Your task to perform on an android device: show emergency info Image 0: 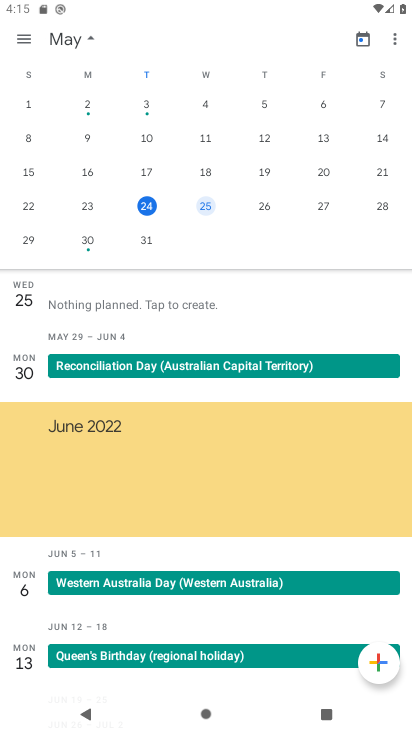
Step 0: press home button
Your task to perform on an android device: show emergency info Image 1: 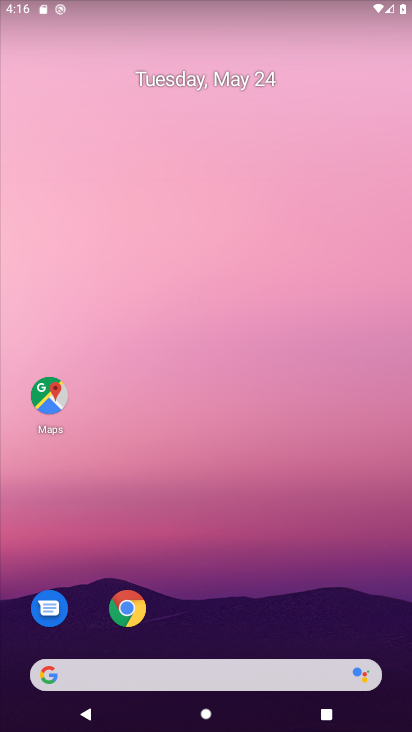
Step 1: drag from (242, 663) to (199, 220)
Your task to perform on an android device: show emergency info Image 2: 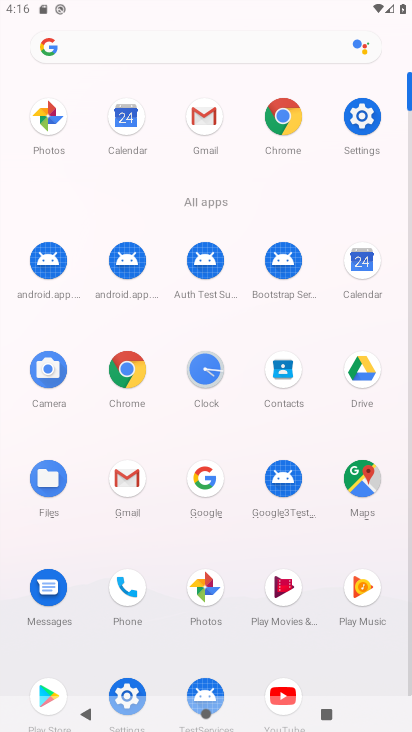
Step 2: click (359, 128)
Your task to perform on an android device: show emergency info Image 3: 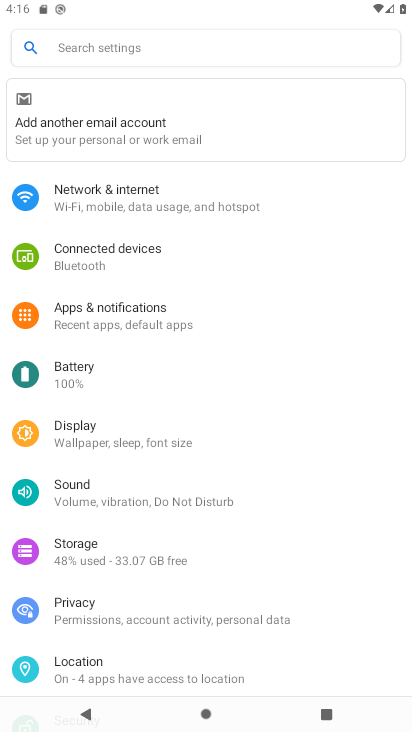
Step 3: drag from (169, 678) to (135, 295)
Your task to perform on an android device: show emergency info Image 4: 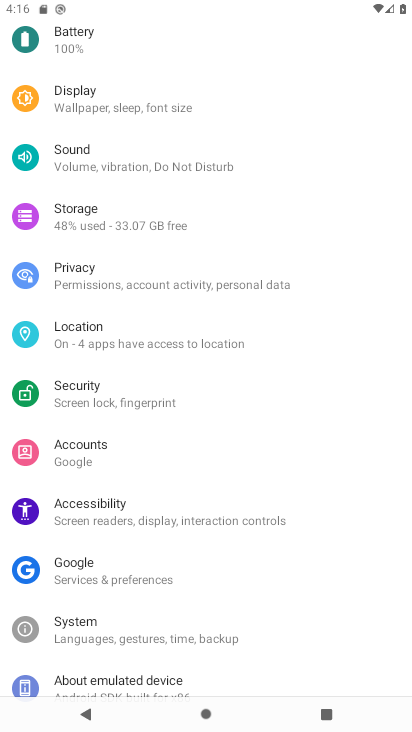
Step 4: drag from (127, 625) to (127, 330)
Your task to perform on an android device: show emergency info Image 5: 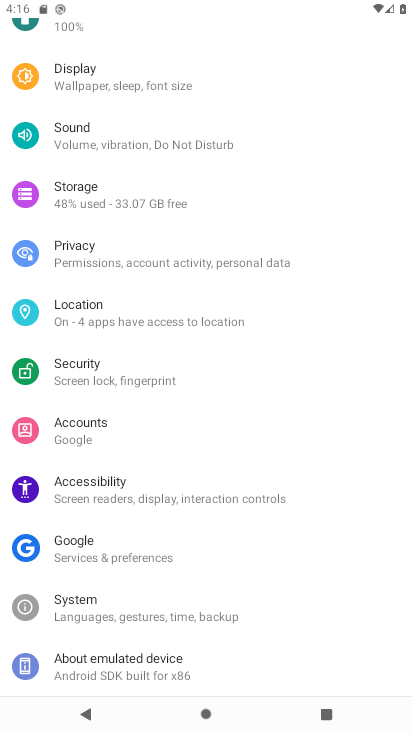
Step 5: click (165, 659)
Your task to perform on an android device: show emergency info Image 6: 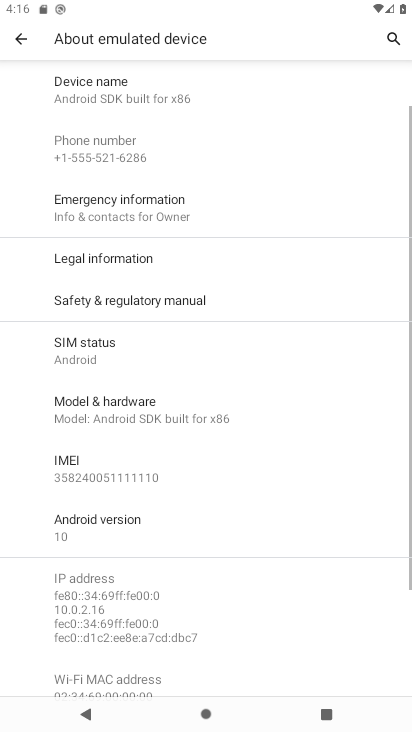
Step 6: drag from (183, 669) to (223, 393)
Your task to perform on an android device: show emergency info Image 7: 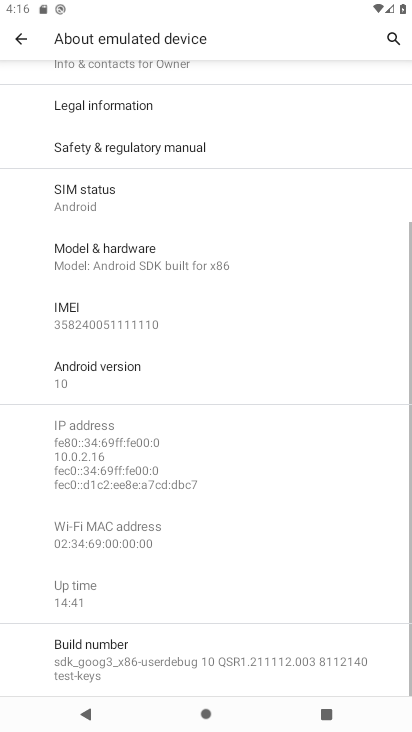
Step 7: drag from (122, 117) to (124, 475)
Your task to perform on an android device: show emergency info Image 8: 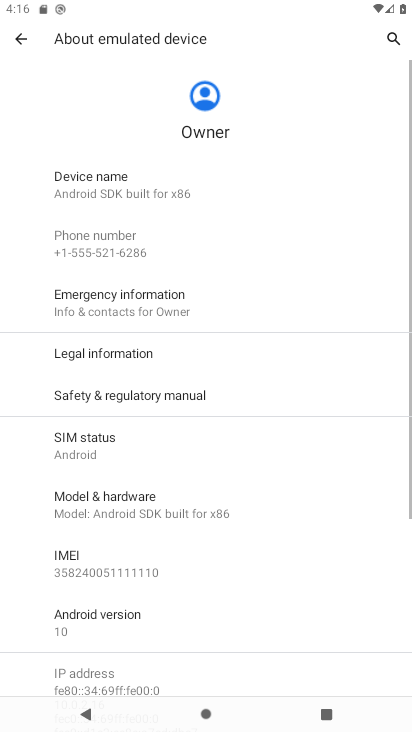
Step 8: click (86, 311)
Your task to perform on an android device: show emergency info Image 9: 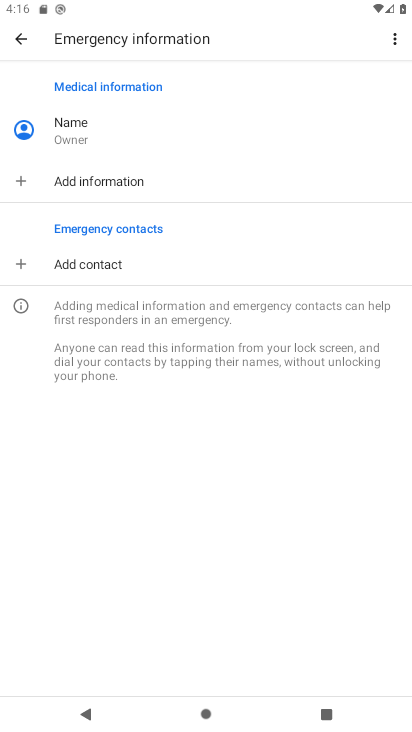
Step 9: task complete